Your task to perform on an android device: Open Google Maps and go to "Timeline" Image 0: 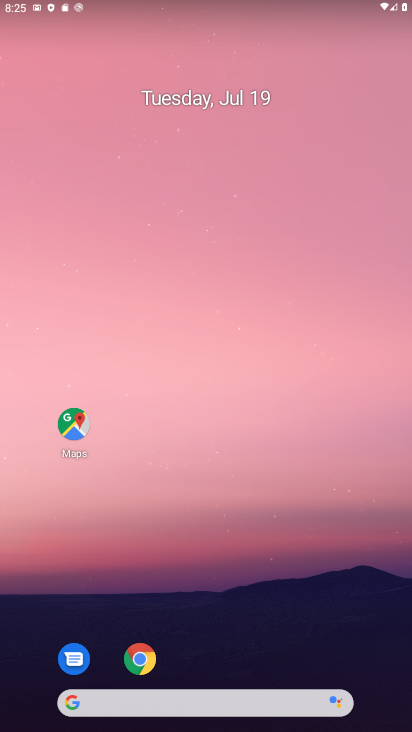
Step 0: drag from (273, 657) to (243, 246)
Your task to perform on an android device: Open Google Maps and go to "Timeline" Image 1: 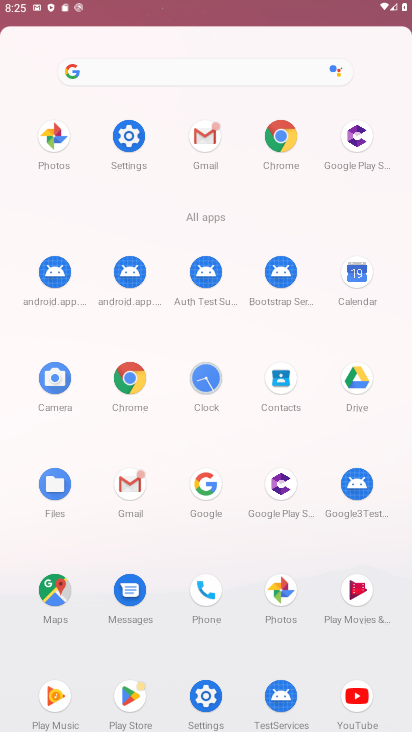
Step 1: drag from (291, 508) to (280, 164)
Your task to perform on an android device: Open Google Maps and go to "Timeline" Image 2: 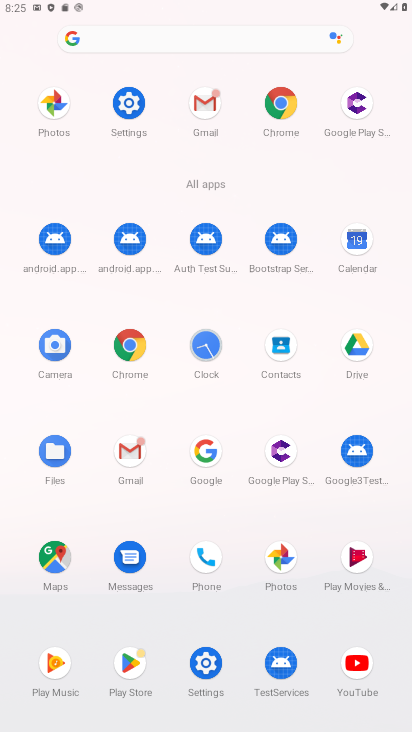
Step 2: click (65, 558)
Your task to perform on an android device: Open Google Maps and go to "Timeline" Image 3: 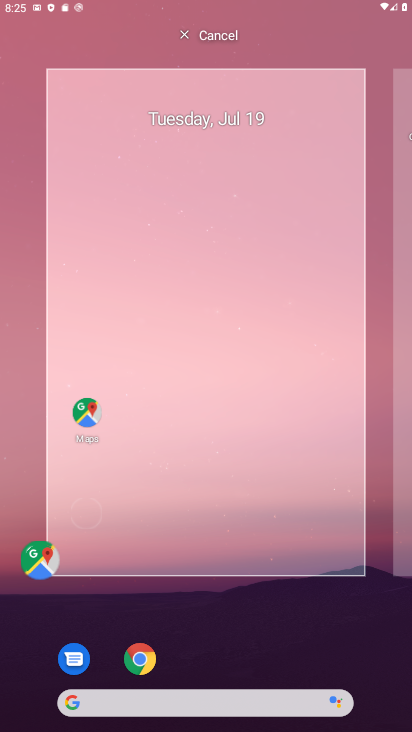
Step 3: click (50, 561)
Your task to perform on an android device: Open Google Maps and go to "Timeline" Image 4: 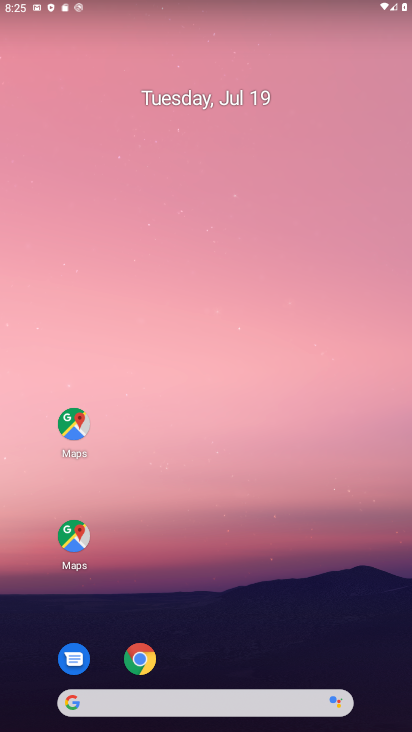
Step 4: click (81, 525)
Your task to perform on an android device: Open Google Maps and go to "Timeline" Image 5: 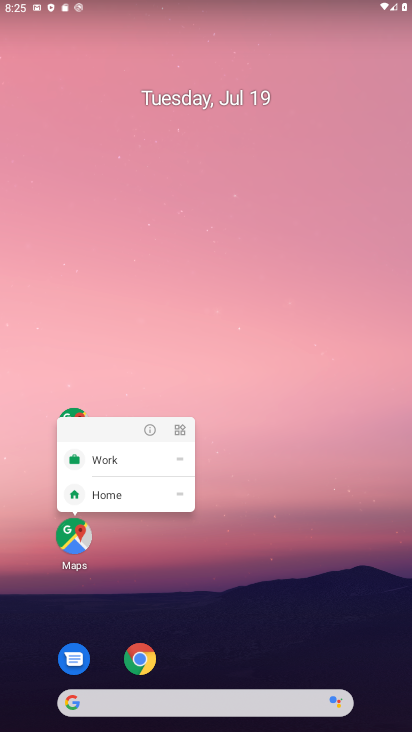
Step 5: click (81, 526)
Your task to perform on an android device: Open Google Maps and go to "Timeline" Image 6: 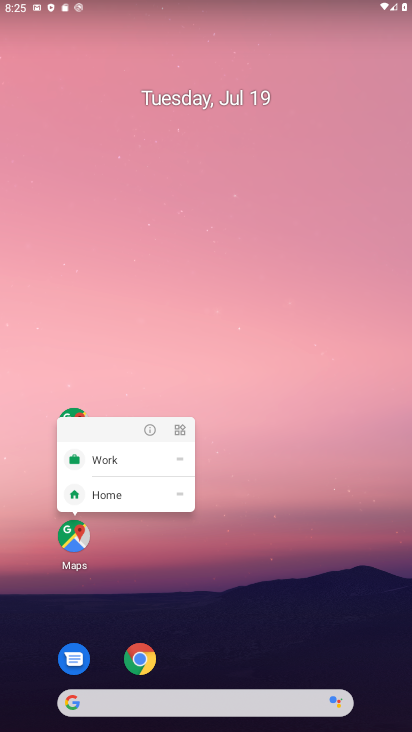
Step 6: click (81, 526)
Your task to perform on an android device: Open Google Maps and go to "Timeline" Image 7: 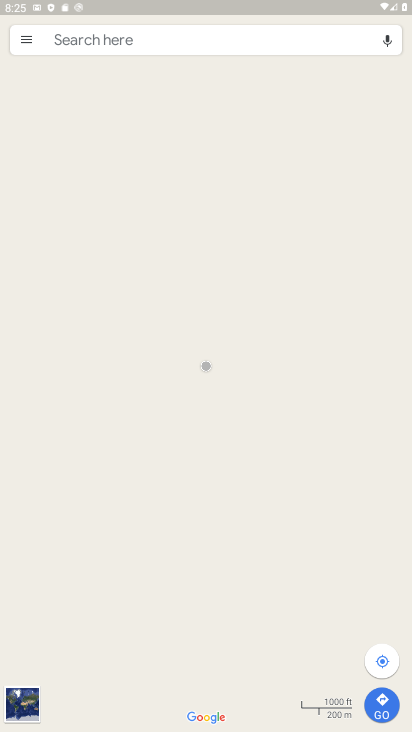
Step 7: click (30, 46)
Your task to perform on an android device: Open Google Maps and go to "Timeline" Image 8: 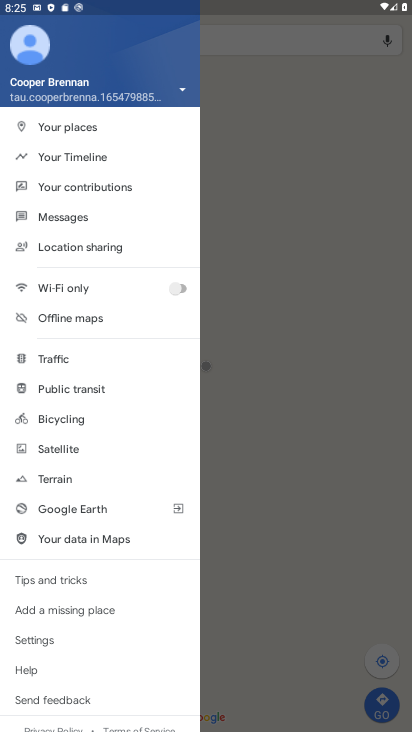
Step 8: click (74, 169)
Your task to perform on an android device: Open Google Maps and go to "Timeline" Image 9: 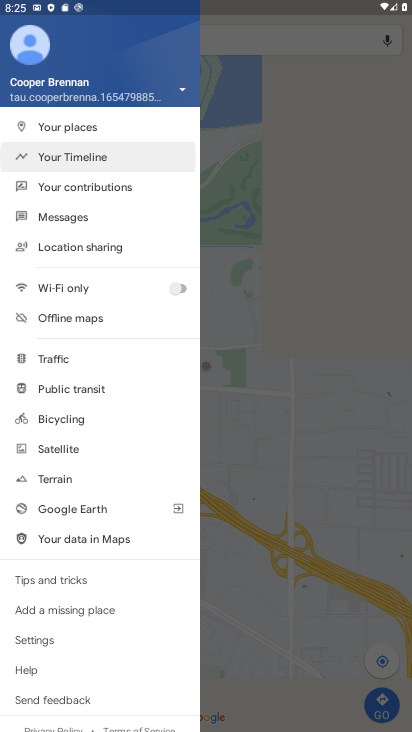
Step 9: click (81, 157)
Your task to perform on an android device: Open Google Maps and go to "Timeline" Image 10: 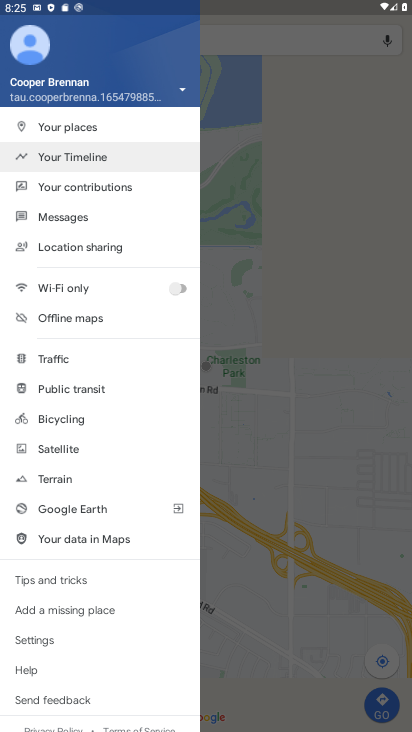
Step 10: click (81, 157)
Your task to perform on an android device: Open Google Maps and go to "Timeline" Image 11: 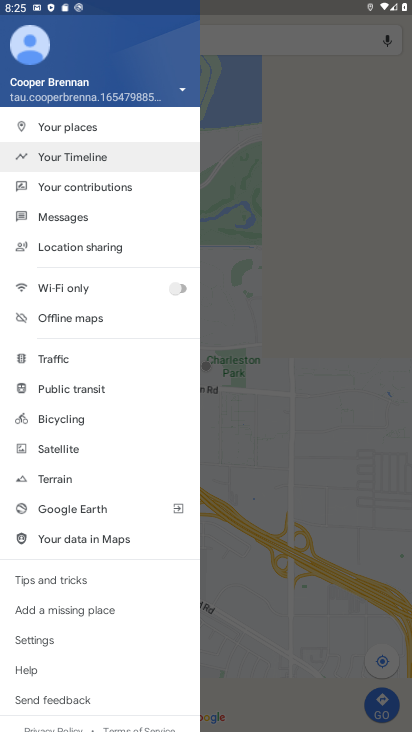
Step 11: click (81, 157)
Your task to perform on an android device: Open Google Maps and go to "Timeline" Image 12: 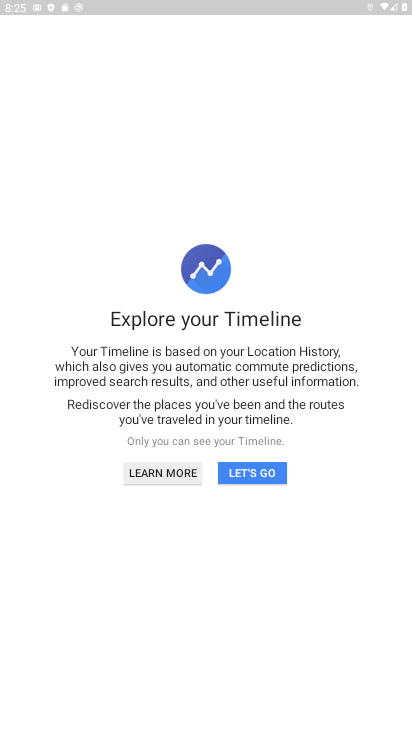
Step 12: click (260, 467)
Your task to perform on an android device: Open Google Maps and go to "Timeline" Image 13: 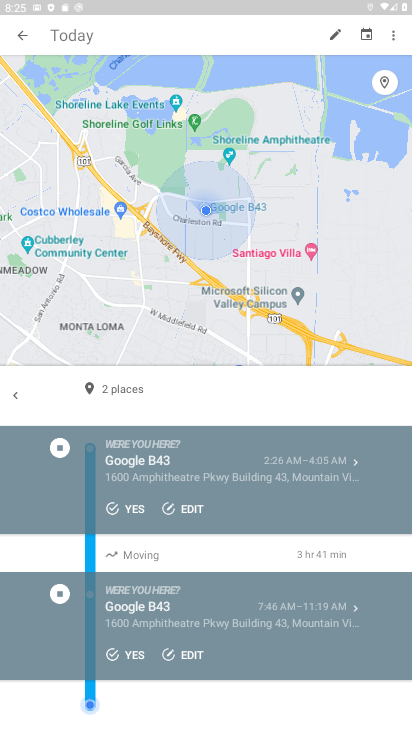
Step 13: task complete